Your task to perform on an android device: change your default location settings in chrome Image 0: 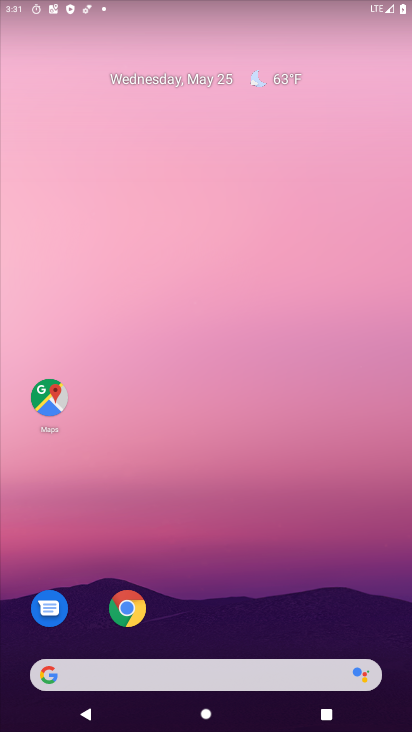
Step 0: click (127, 604)
Your task to perform on an android device: change your default location settings in chrome Image 1: 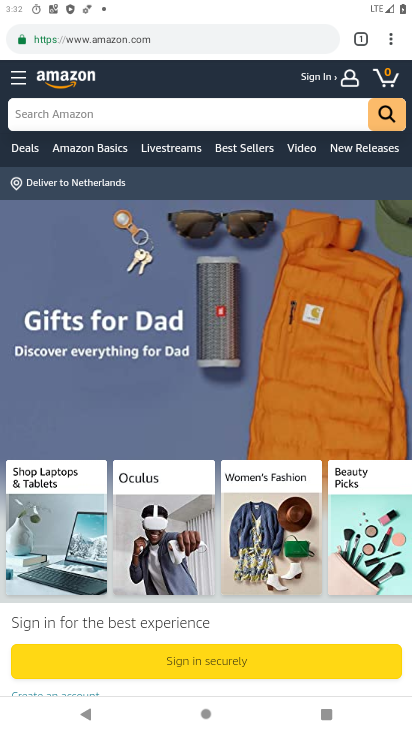
Step 1: click (391, 42)
Your task to perform on an android device: change your default location settings in chrome Image 2: 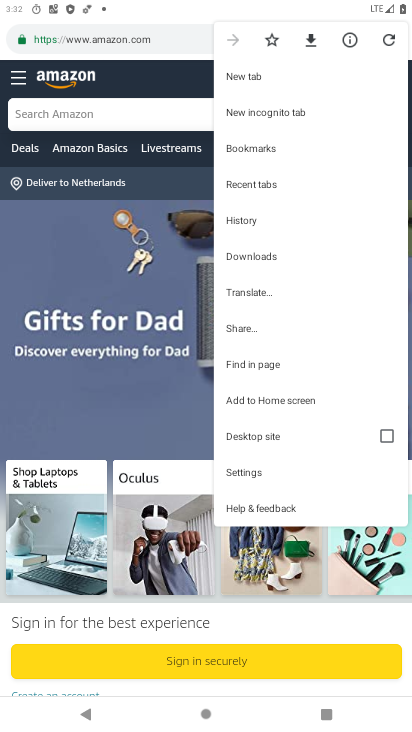
Step 2: click (264, 468)
Your task to perform on an android device: change your default location settings in chrome Image 3: 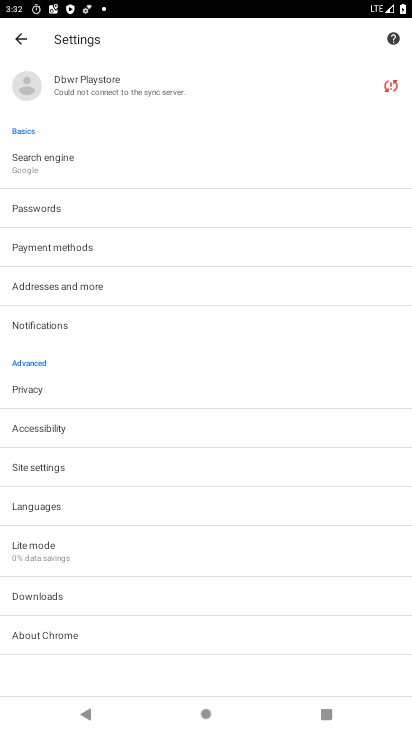
Step 3: click (112, 472)
Your task to perform on an android device: change your default location settings in chrome Image 4: 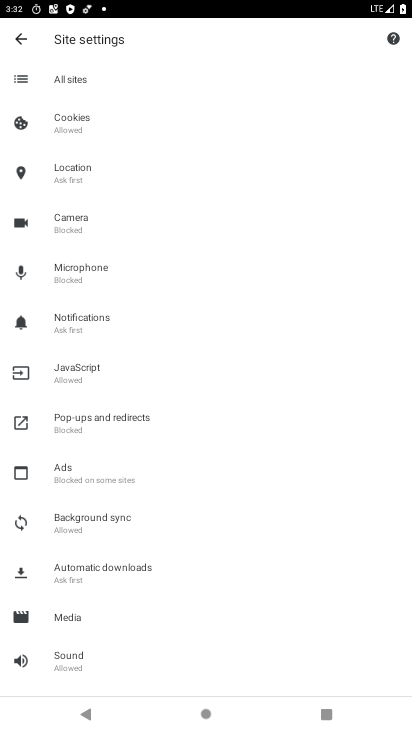
Step 4: click (107, 171)
Your task to perform on an android device: change your default location settings in chrome Image 5: 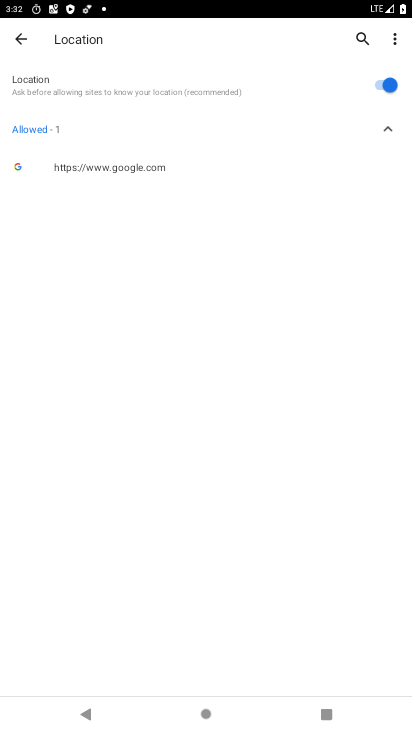
Step 5: click (387, 76)
Your task to perform on an android device: change your default location settings in chrome Image 6: 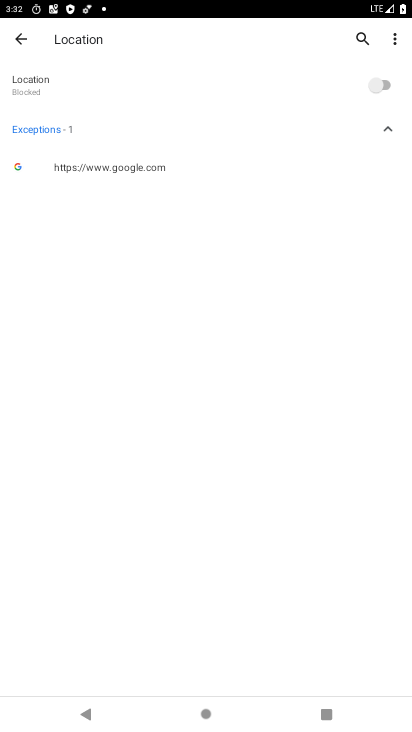
Step 6: task complete